Your task to perform on an android device: Go to accessibility settings Image 0: 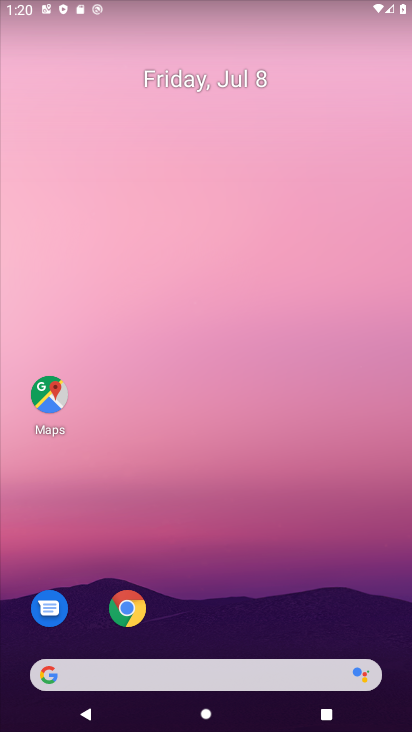
Step 0: drag from (382, 627) to (310, 98)
Your task to perform on an android device: Go to accessibility settings Image 1: 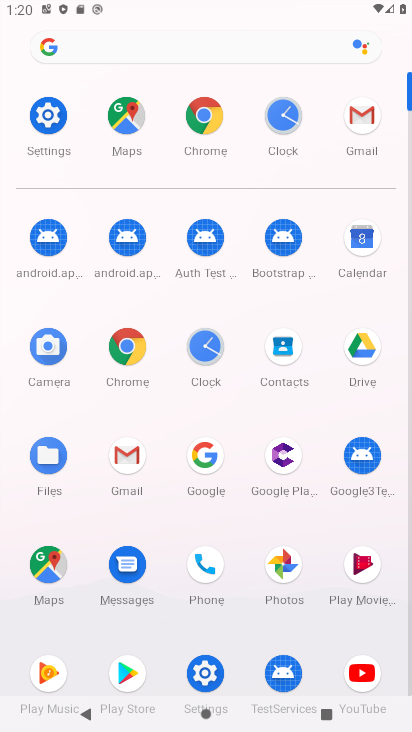
Step 1: click (204, 675)
Your task to perform on an android device: Go to accessibility settings Image 2: 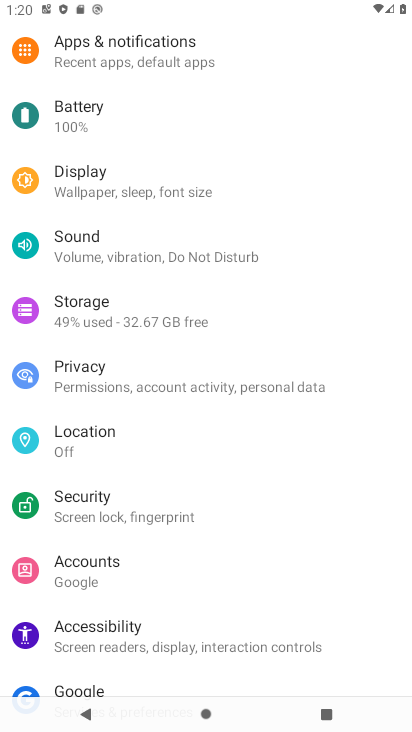
Step 2: click (92, 630)
Your task to perform on an android device: Go to accessibility settings Image 3: 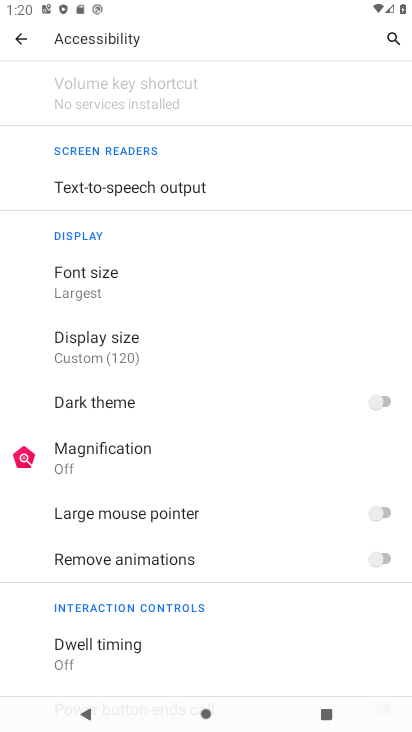
Step 3: task complete